Your task to perform on an android device: turn off wifi Image 0: 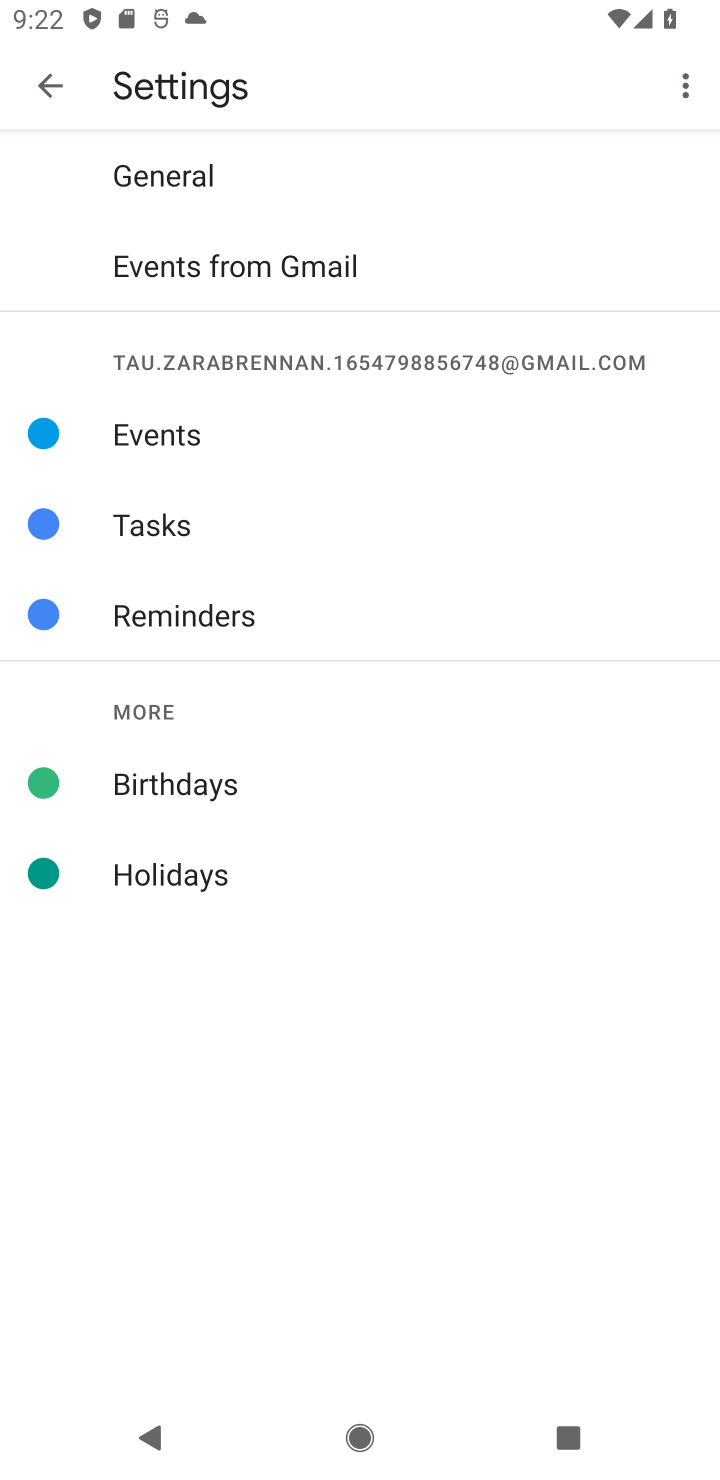
Step 0: press home button
Your task to perform on an android device: turn off wifi Image 1: 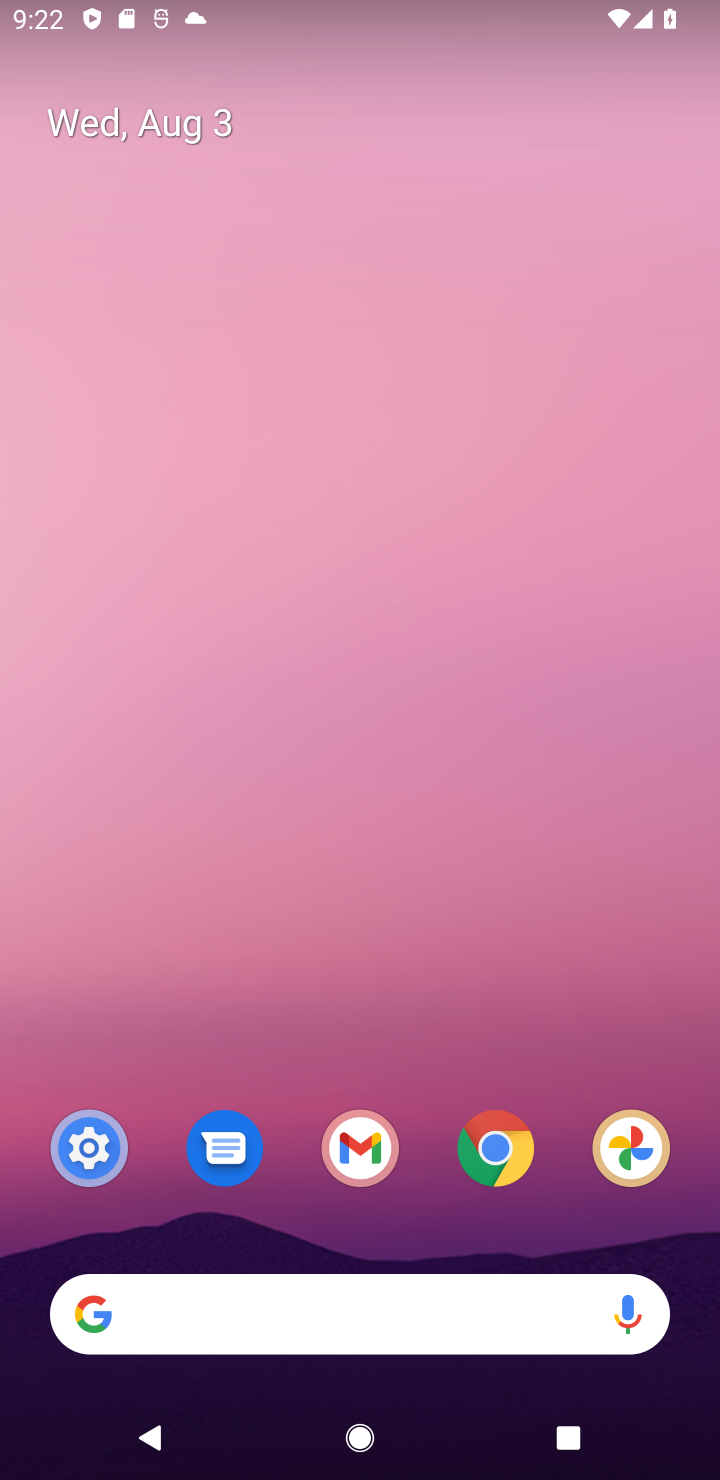
Step 1: drag from (456, 800) to (460, 199)
Your task to perform on an android device: turn off wifi Image 2: 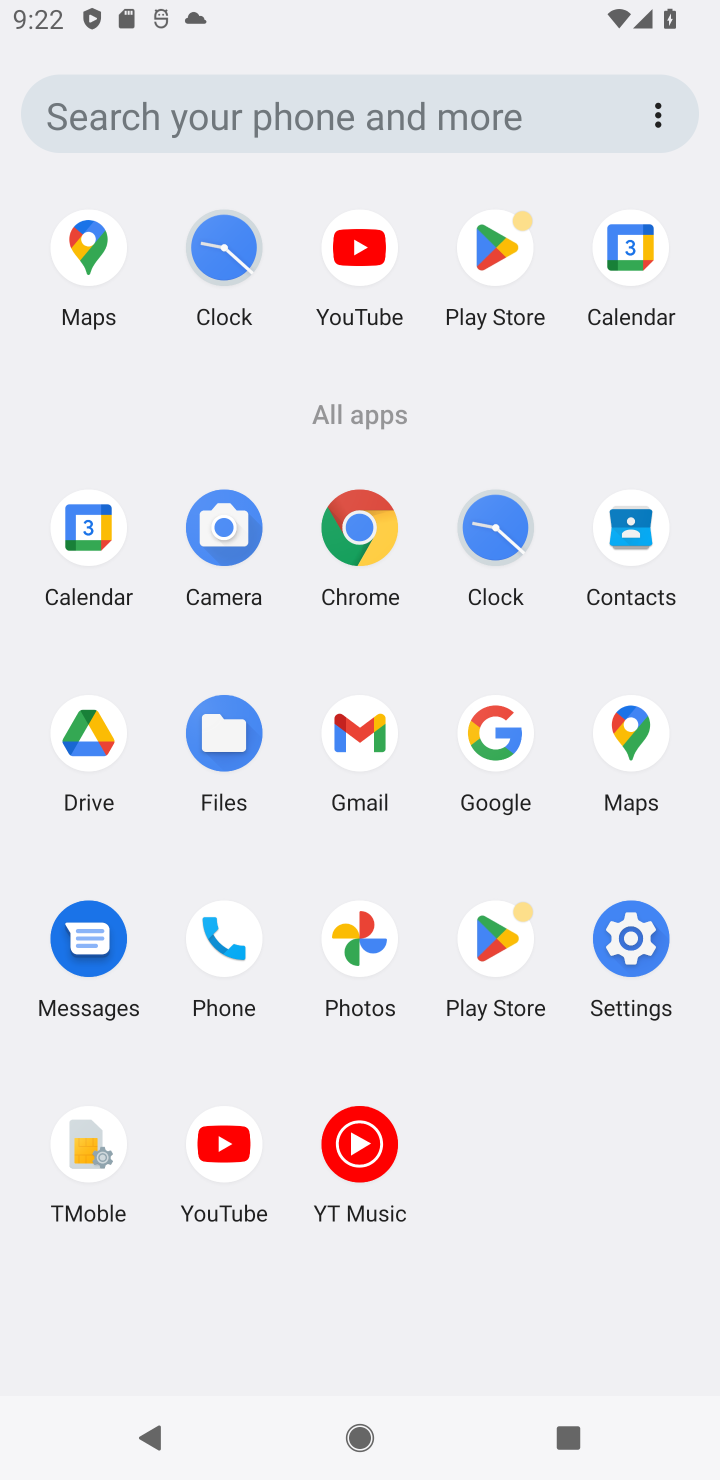
Step 2: click (643, 951)
Your task to perform on an android device: turn off wifi Image 3: 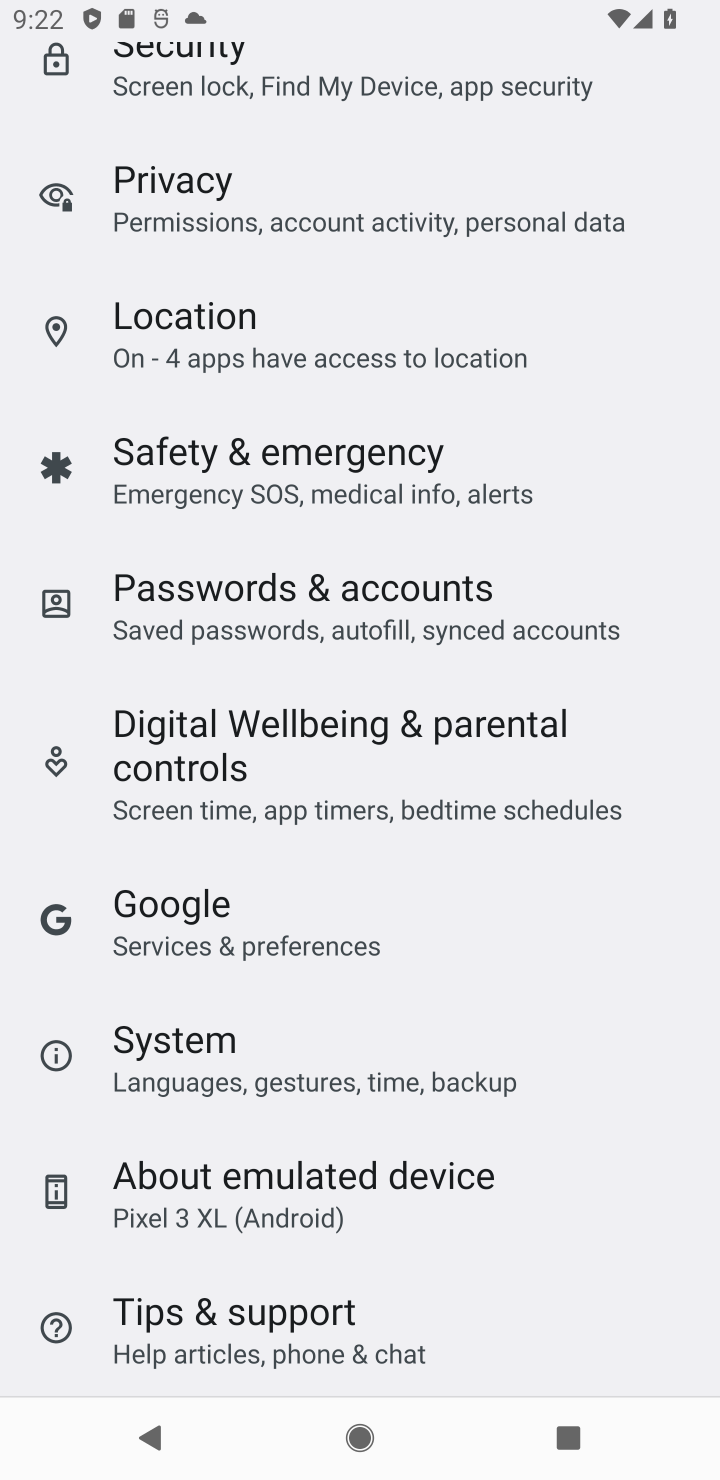
Step 3: drag from (265, 378) to (400, 1337)
Your task to perform on an android device: turn off wifi Image 4: 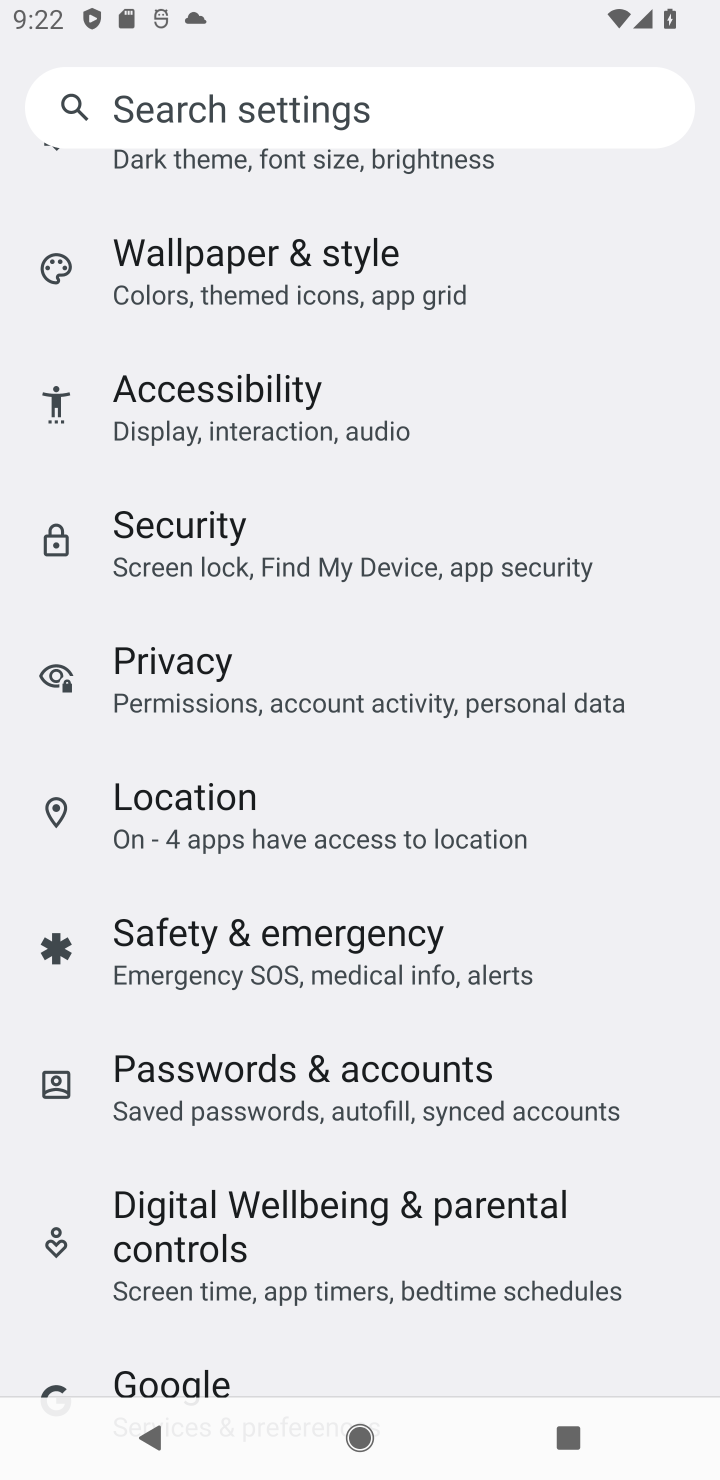
Step 4: drag from (460, 430) to (633, 1352)
Your task to perform on an android device: turn off wifi Image 5: 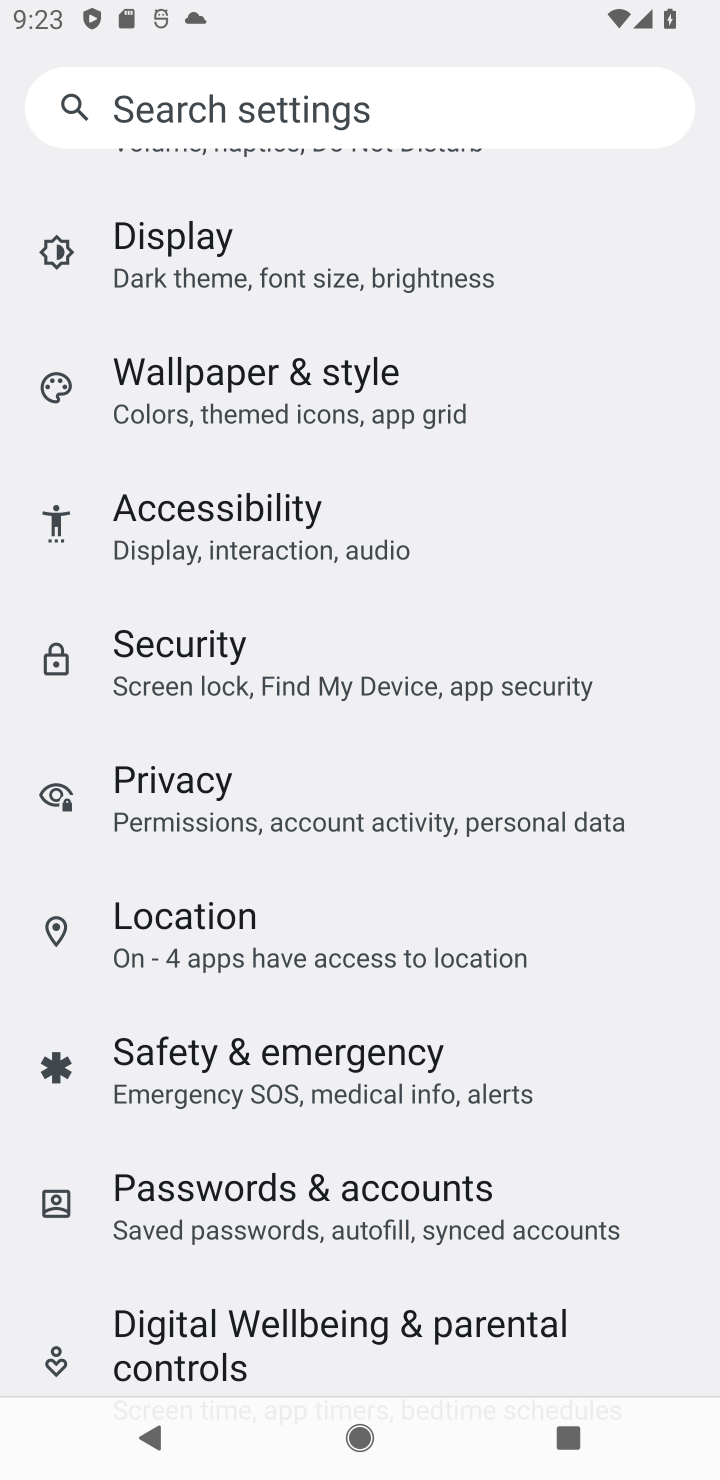
Step 5: drag from (461, 567) to (422, 1162)
Your task to perform on an android device: turn off wifi Image 6: 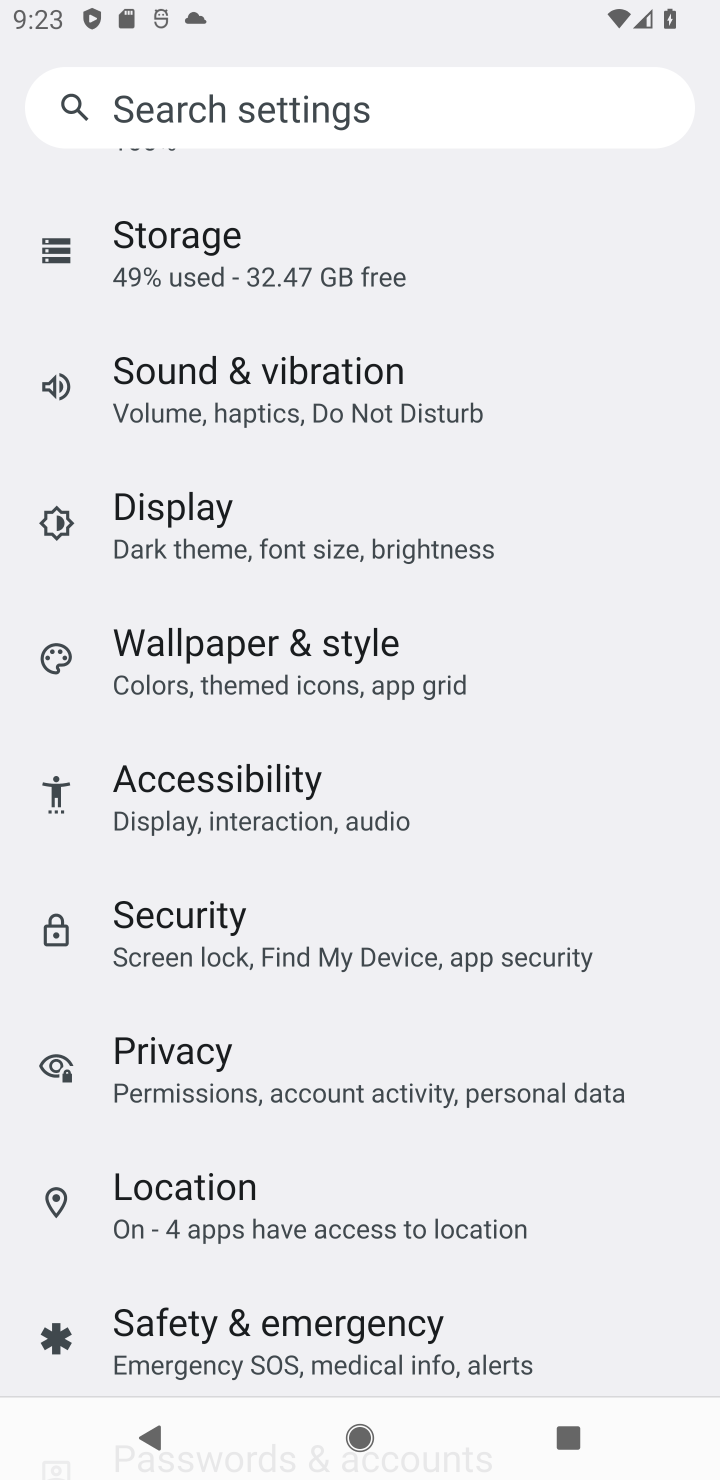
Step 6: drag from (372, 439) to (379, 1218)
Your task to perform on an android device: turn off wifi Image 7: 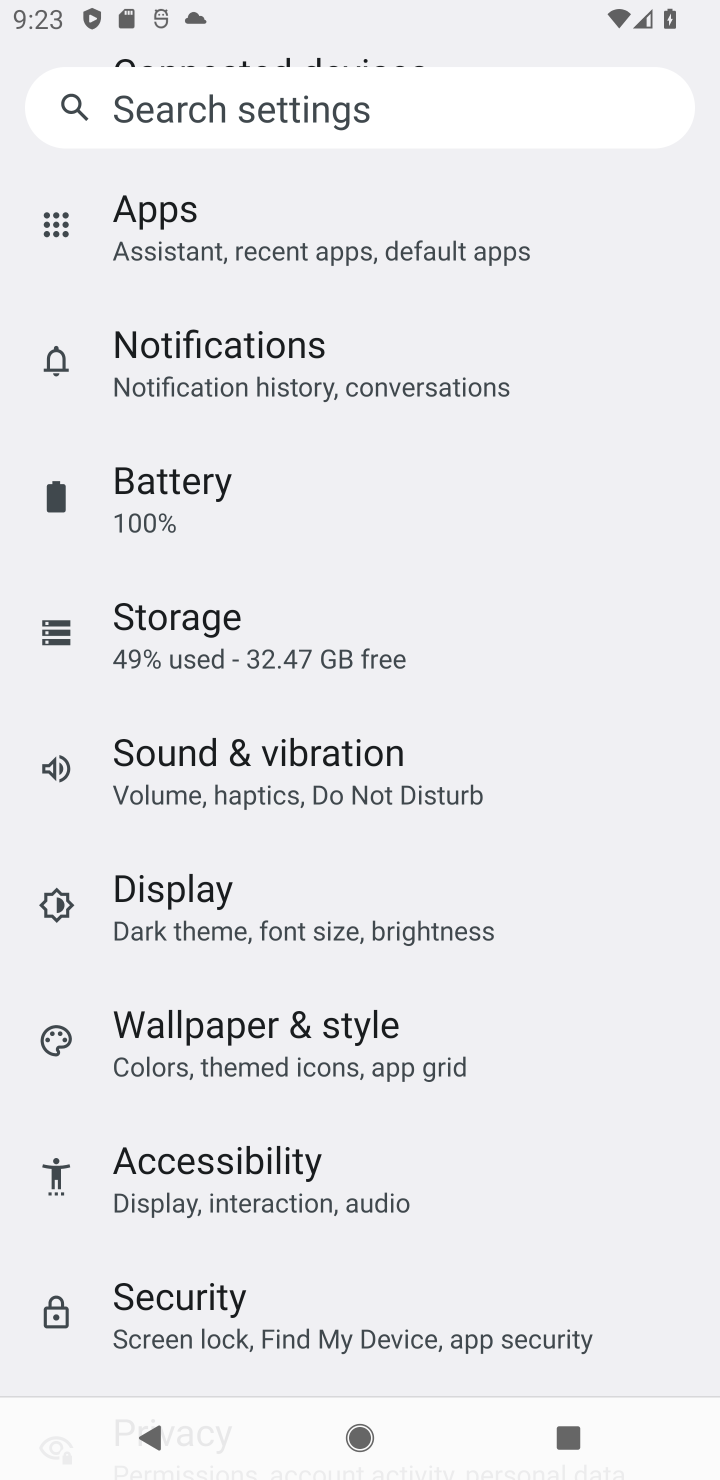
Step 7: drag from (429, 188) to (487, 1221)
Your task to perform on an android device: turn off wifi Image 8: 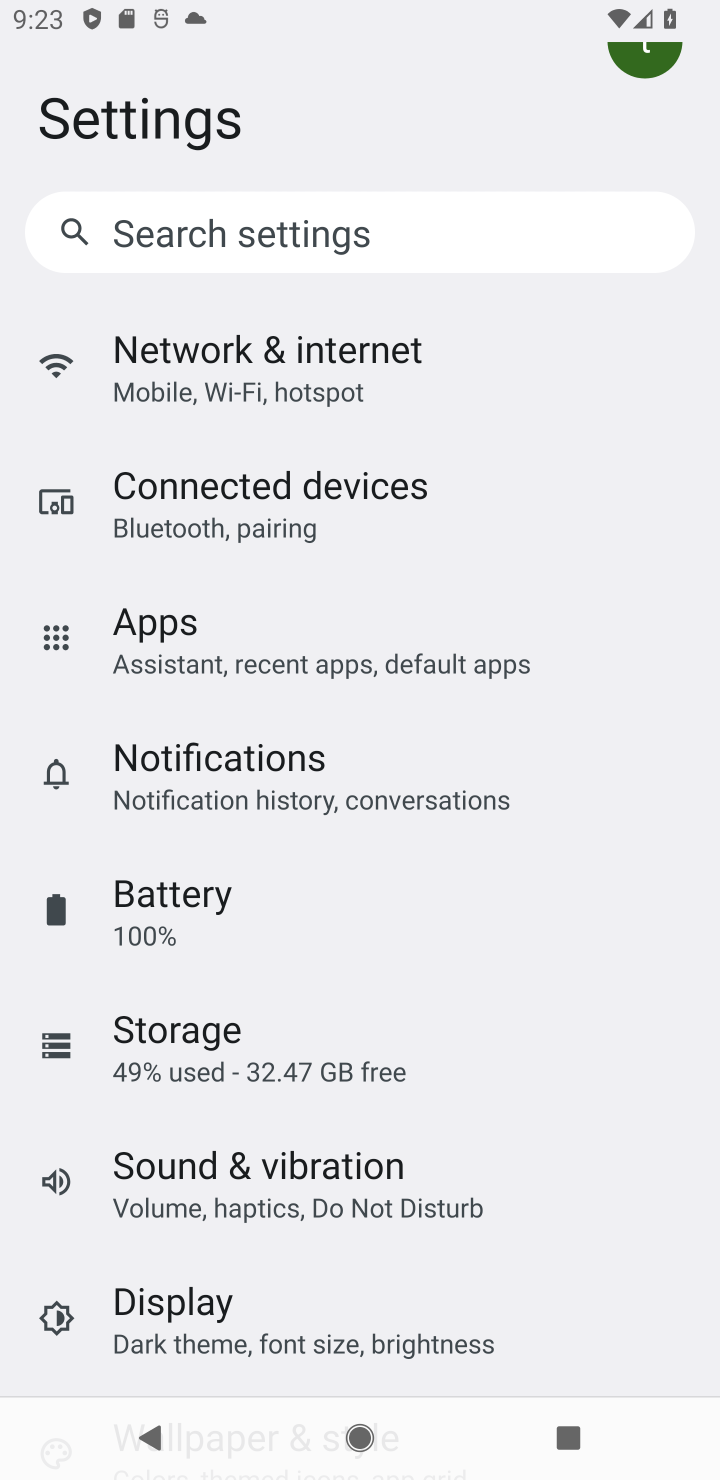
Step 8: click (365, 372)
Your task to perform on an android device: turn off wifi Image 9: 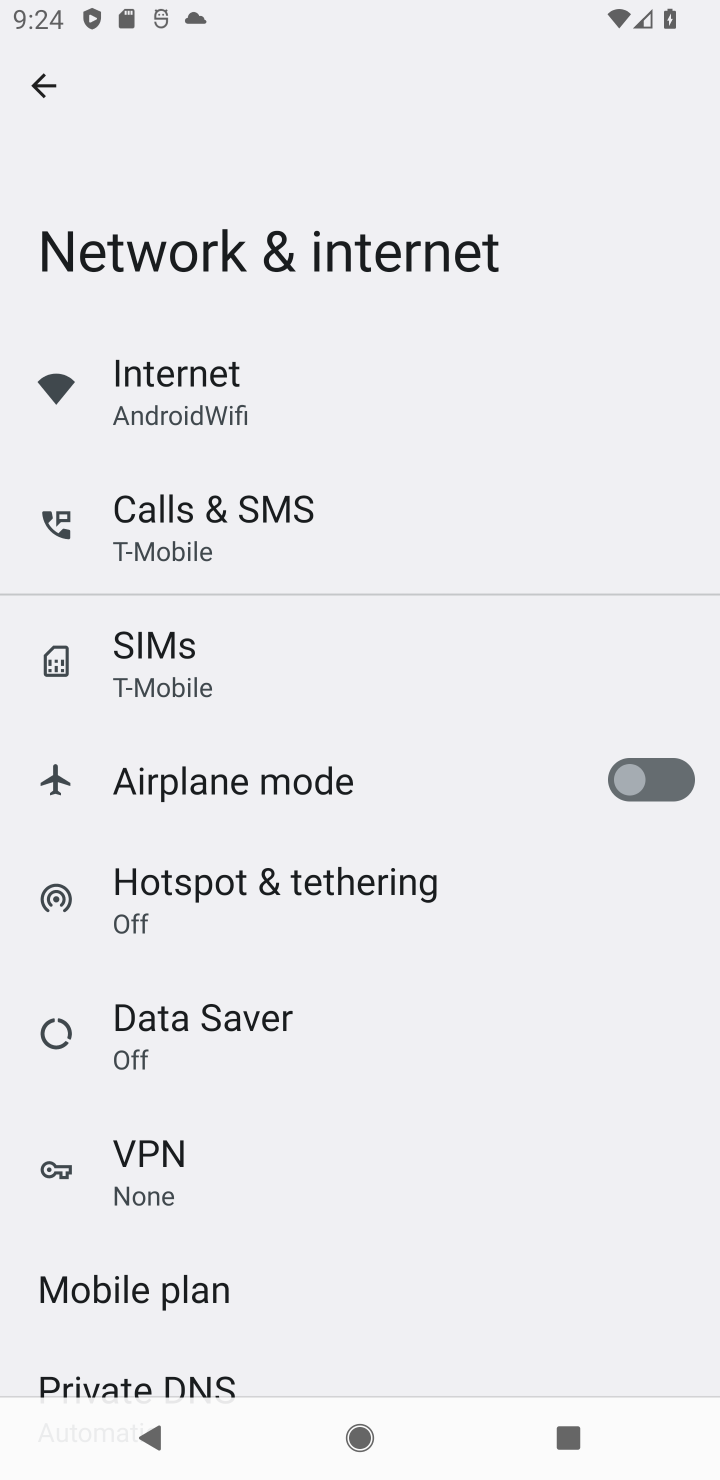
Step 9: click (245, 399)
Your task to perform on an android device: turn off wifi Image 10: 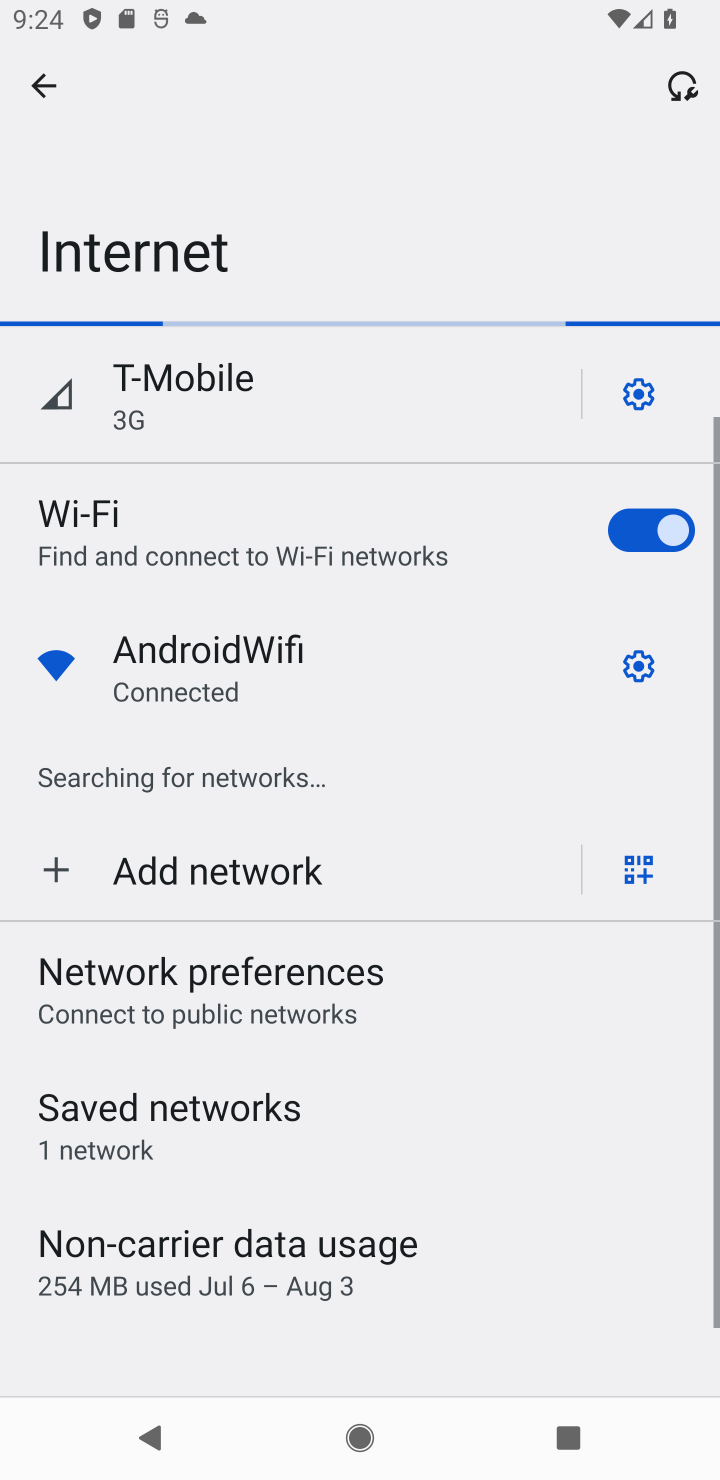
Step 10: click (666, 547)
Your task to perform on an android device: turn off wifi Image 11: 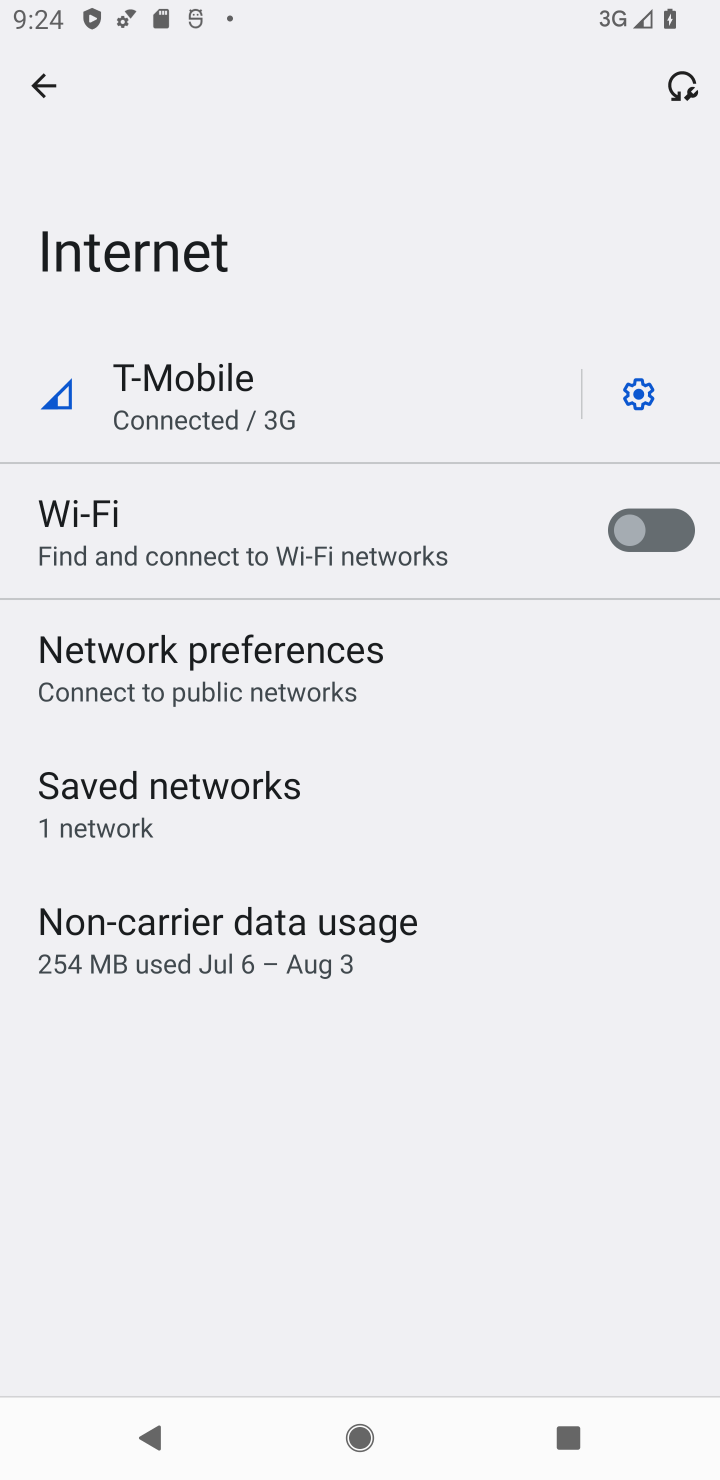
Step 11: task complete